Your task to perform on an android device: Is it going to rain tomorrow? Image 0: 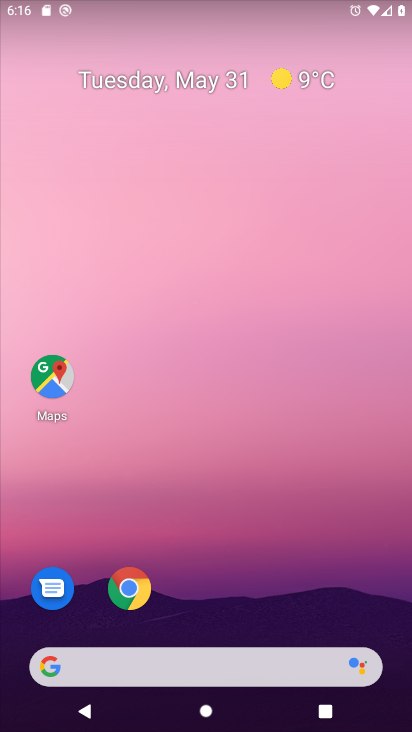
Step 0: click (192, 664)
Your task to perform on an android device: Is it going to rain tomorrow? Image 1: 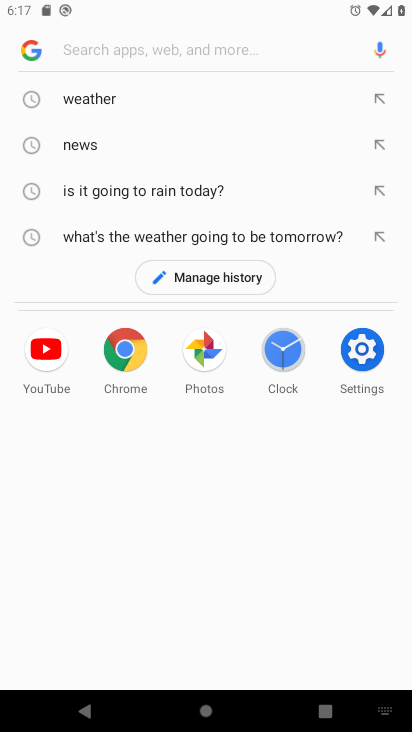
Step 1: click (90, 110)
Your task to perform on an android device: Is it going to rain tomorrow? Image 2: 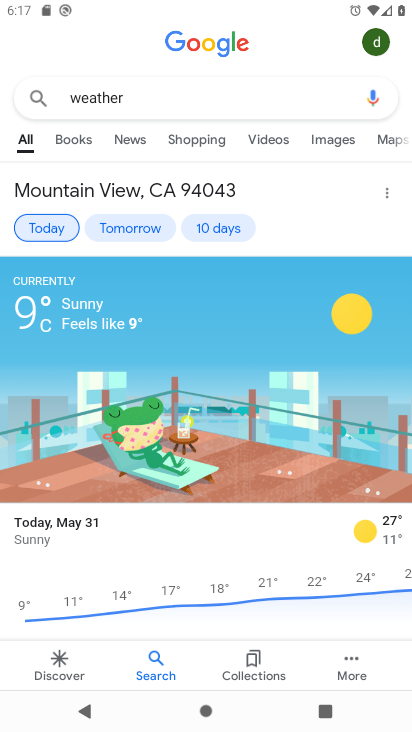
Step 2: click (124, 231)
Your task to perform on an android device: Is it going to rain tomorrow? Image 3: 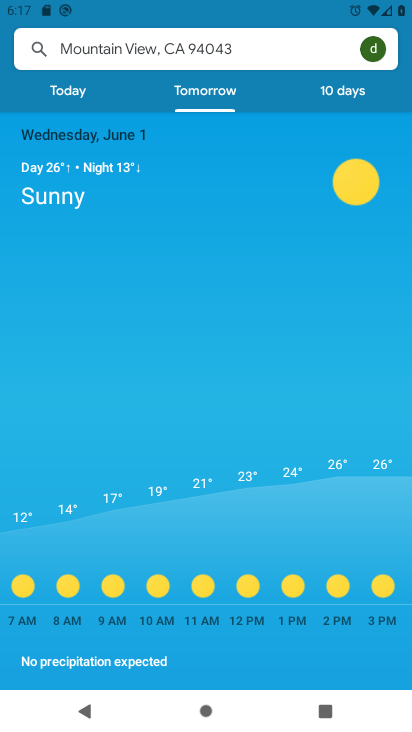
Step 3: task complete